Your task to perform on an android device: Open Google Maps and go to "Timeline" Image 0: 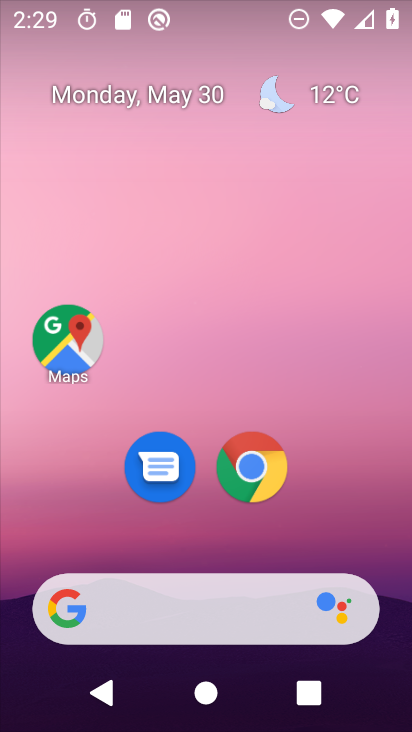
Step 0: click (75, 333)
Your task to perform on an android device: Open Google Maps and go to "Timeline" Image 1: 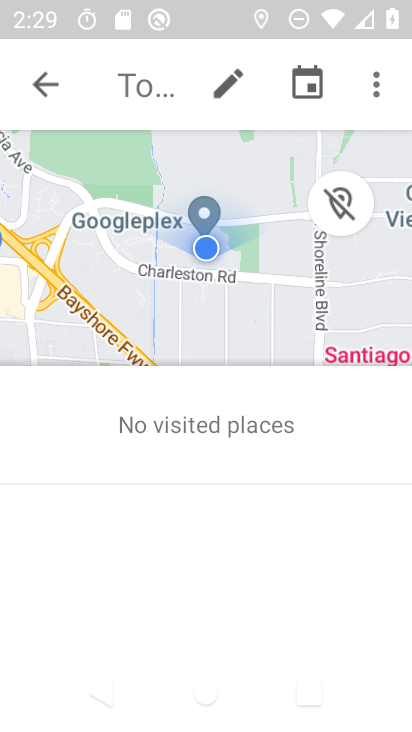
Step 1: click (55, 85)
Your task to perform on an android device: Open Google Maps and go to "Timeline" Image 2: 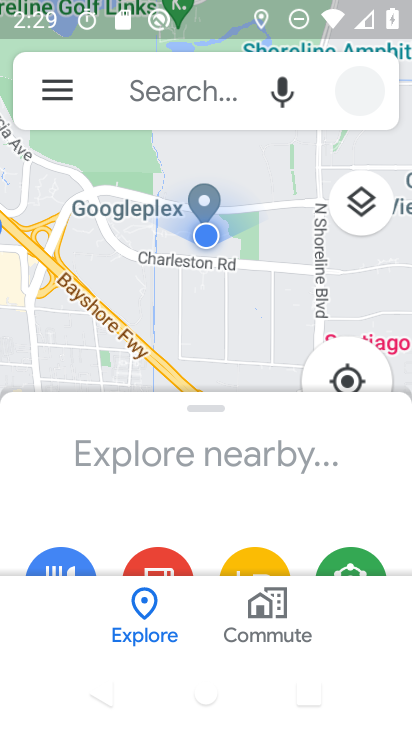
Step 2: click (56, 91)
Your task to perform on an android device: Open Google Maps and go to "Timeline" Image 3: 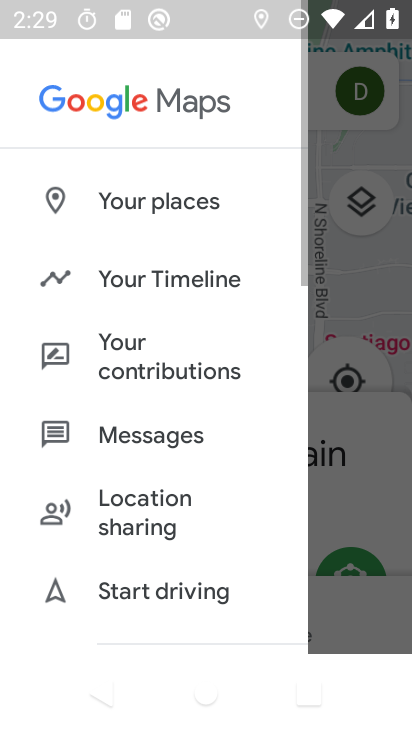
Step 3: click (122, 276)
Your task to perform on an android device: Open Google Maps and go to "Timeline" Image 4: 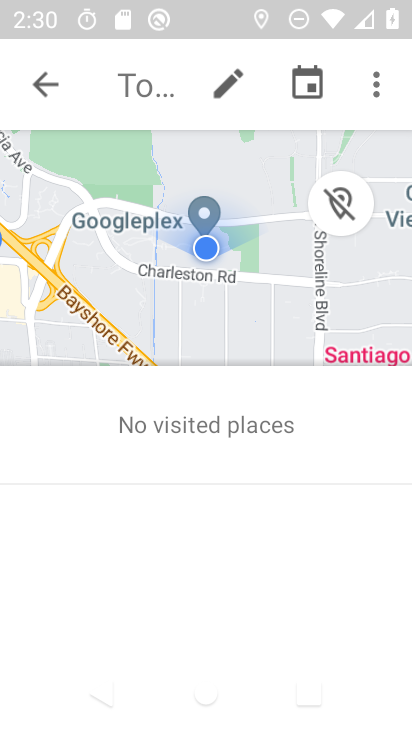
Step 4: task complete